Your task to perform on an android device: Search for seafood restaurants on Google Maps Image 0: 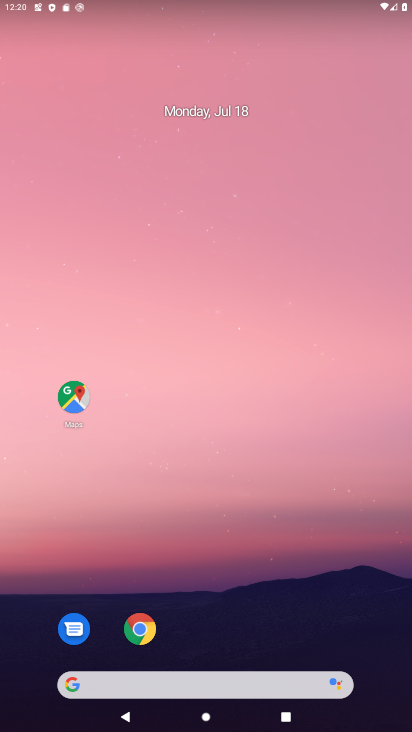
Step 0: drag from (325, 667) to (303, 256)
Your task to perform on an android device: Search for seafood restaurants on Google Maps Image 1: 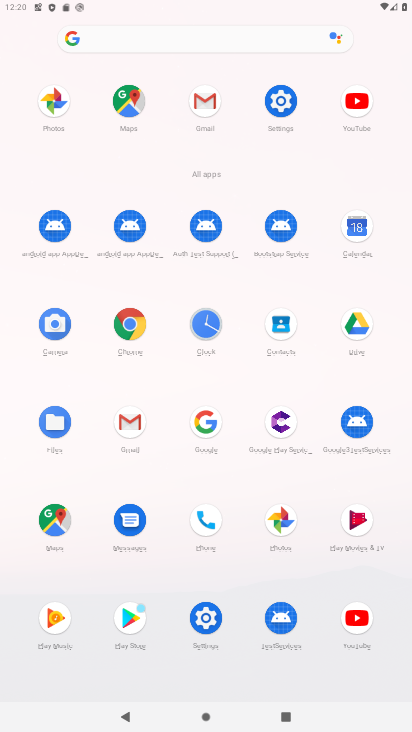
Step 1: click (48, 514)
Your task to perform on an android device: Search for seafood restaurants on Google Maps Image 2: 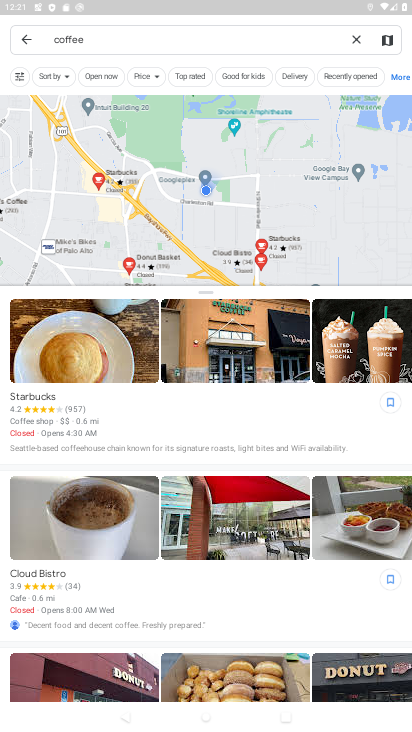
Step 2: click (361, 35)
Your task to perform on an android device: Search for seafood restaurants on Google Maps Image 3: 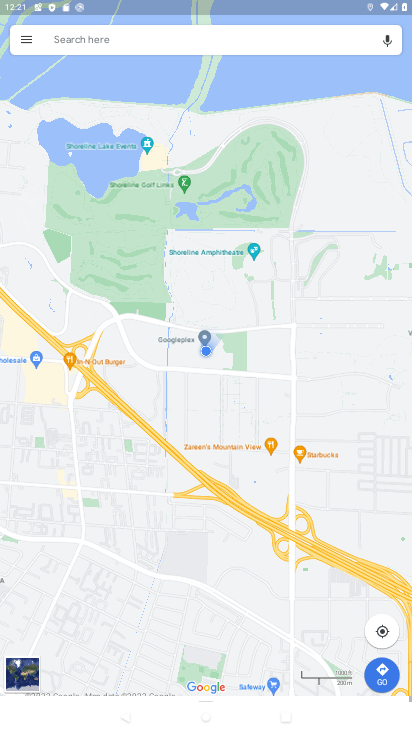
Step 3: click (213, 40)
Your task to perform on an android device: Search for seafood restaurants on Google Maps Image 4: 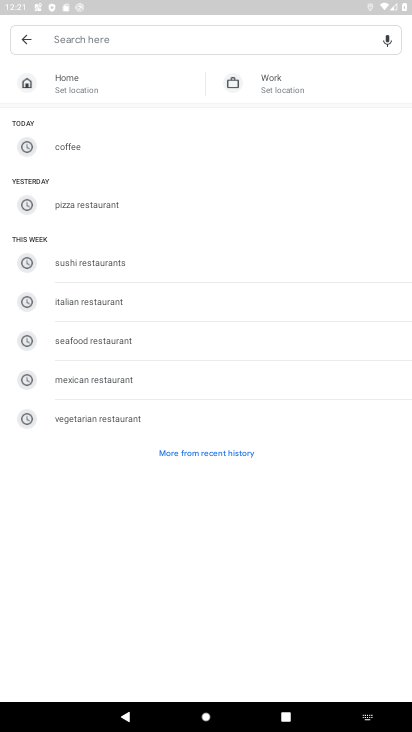
Step 4: click (111, 342)
Your task to perform on an android device: Search for seafood restaurants on Google Maps Image 5: 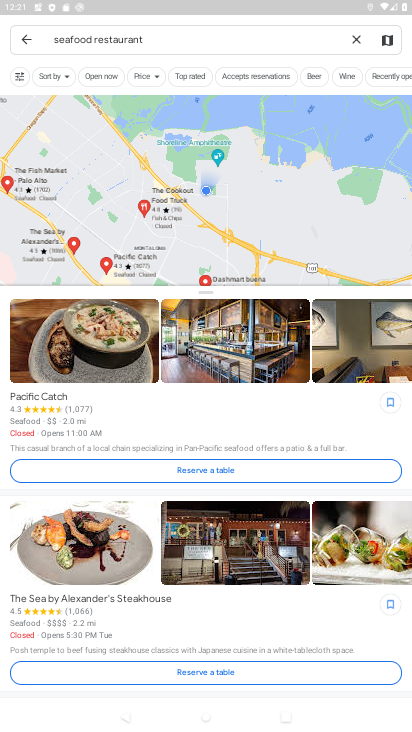
Step 5: task complete